Your task to perform on an android device: open app "WhatsApp Messenger" Image 0: 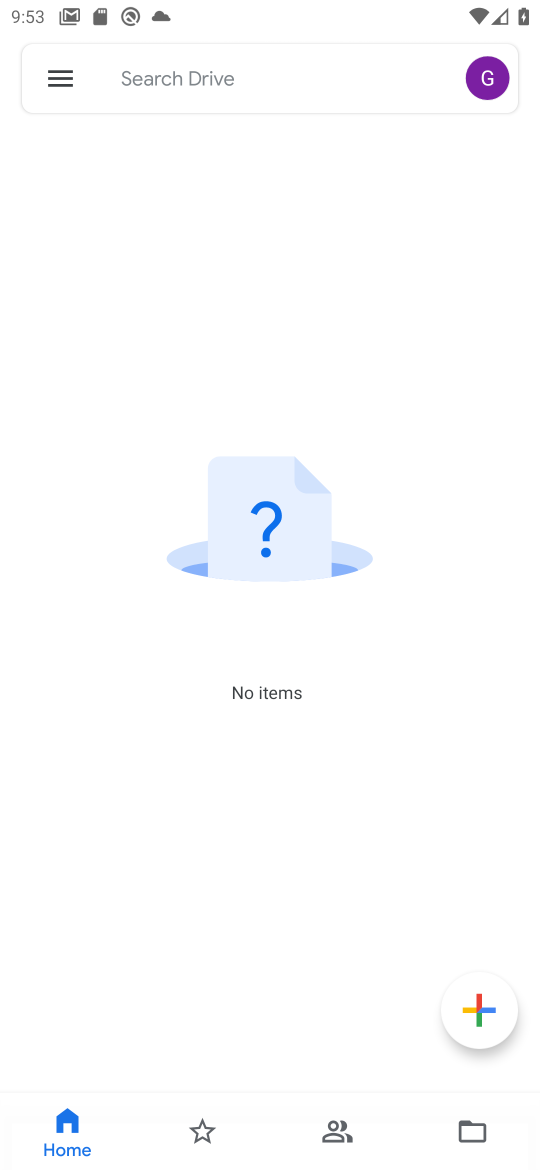
Step 0: press home button
Your task to perform on an android device: open app "WhatsApp Messenger" Image 1: 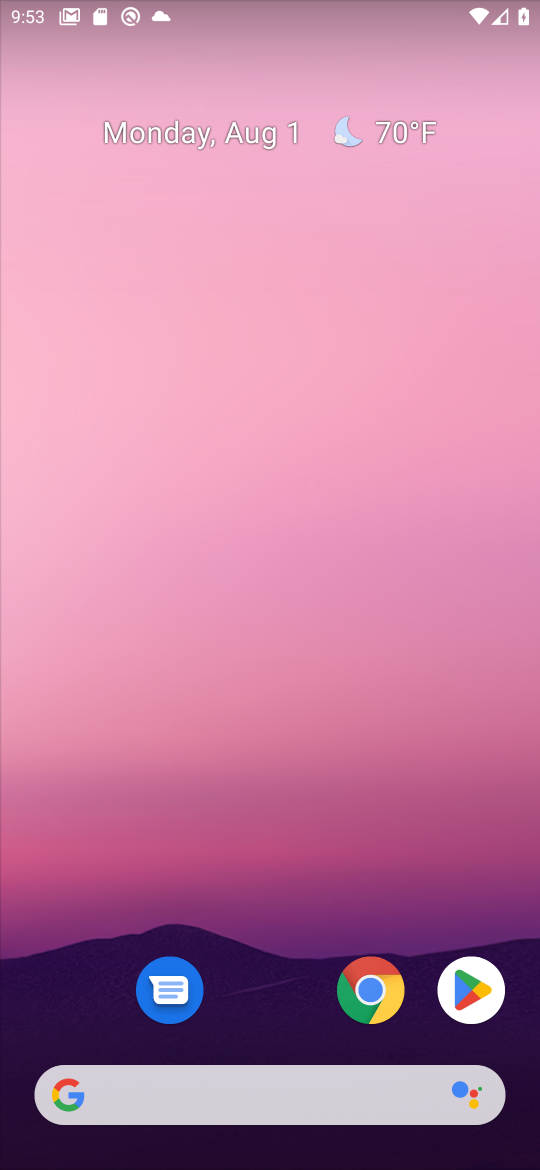
Step 1: drag from (381, 1121) to (427, 419)
Your task to perform on an android device: open app "WhatsApp Messenger" Image 2: 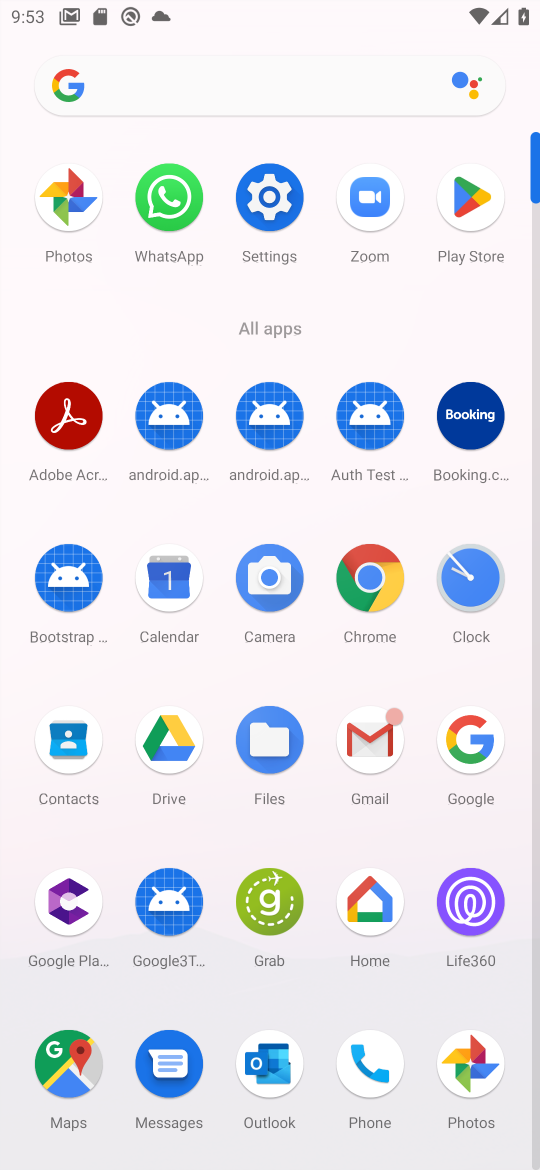
Step 2: click (443, 201)
Your task to perform on an android device: open app "WhatsApp Messenger" Image 3: 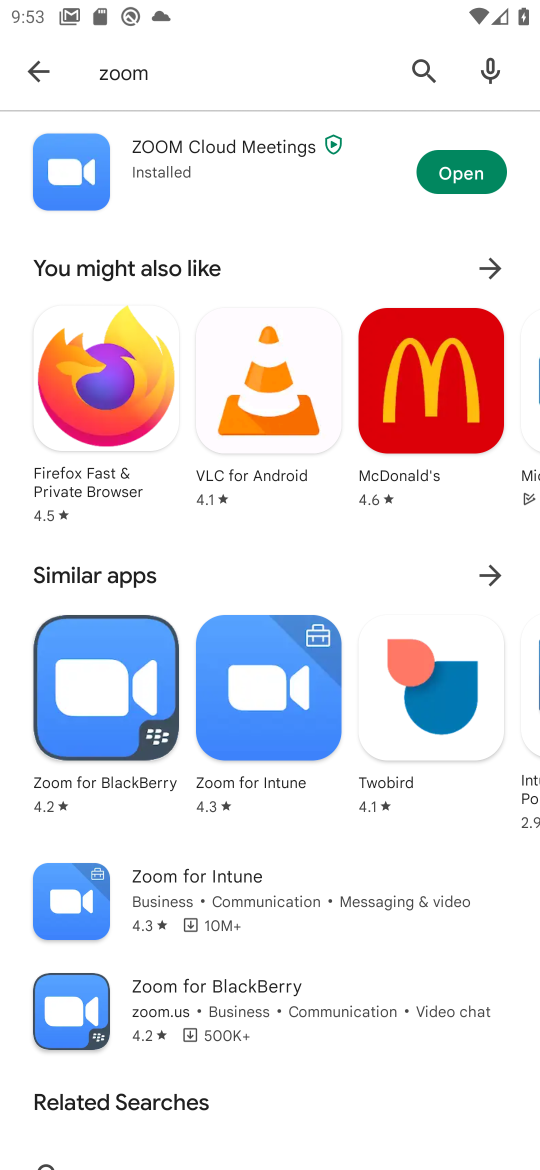
Step 3: click (416, 56)
Your task to perform on an android device: open app "WhatsApp Messenger" Image 4: 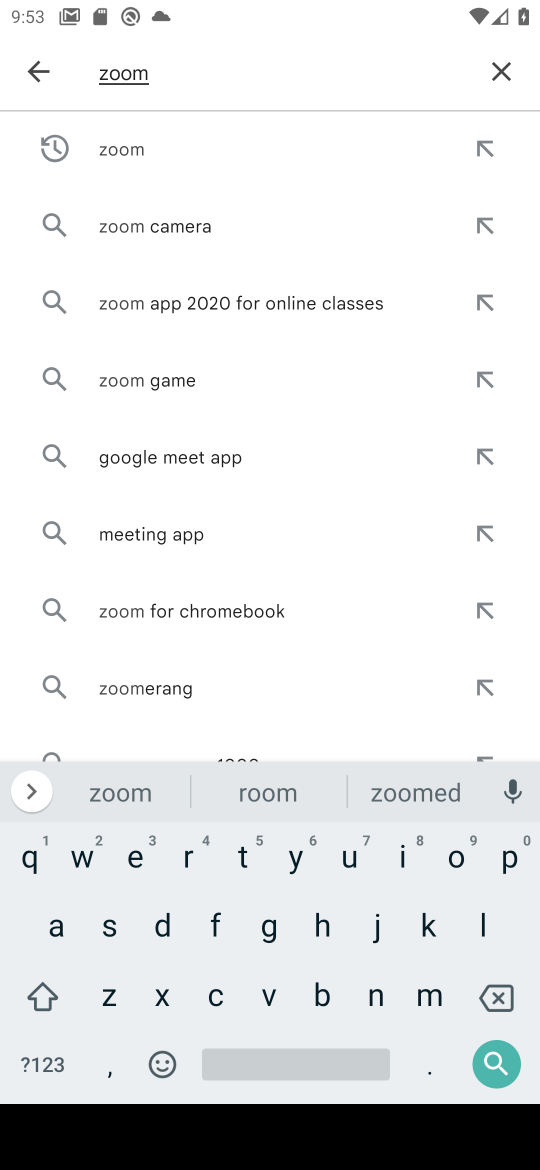
Step 4: click (497, 71)
Your task to perform on an android device: open app "WhatsApp Messenger" Image 5: 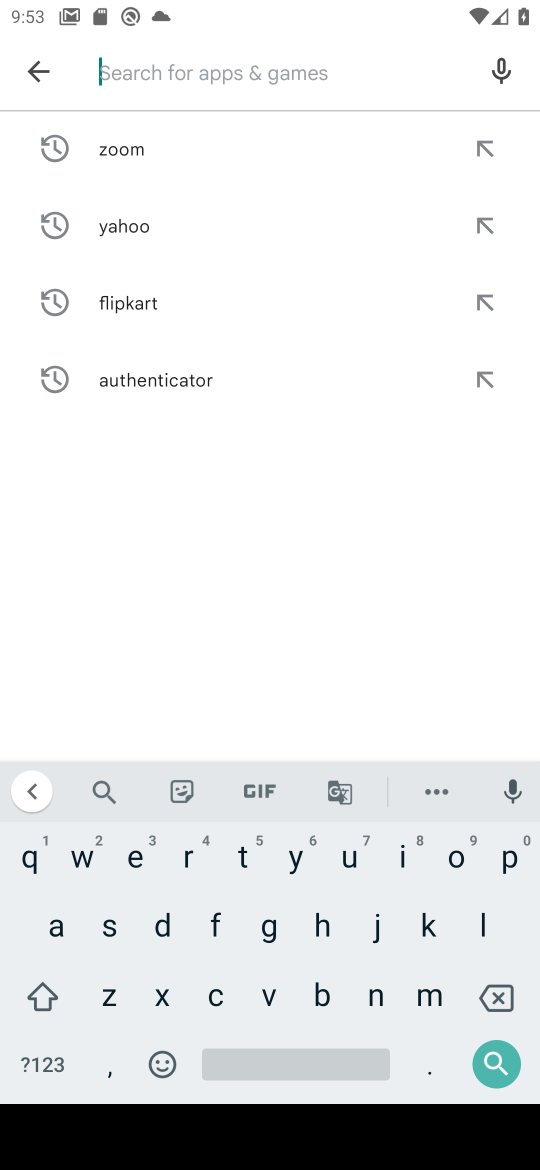
Step 5: click (67, 866)
Your task to perform on an android device: open app "WhatsApp Messenger" Image 6: 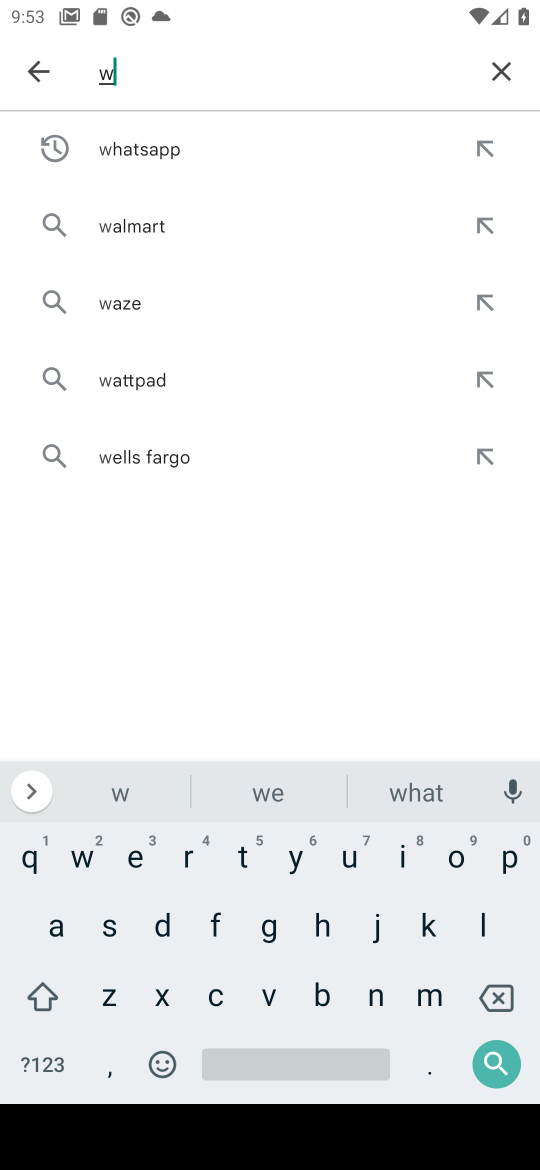
Step 6: click (201, 166)
Your task to perform on an android device: open app "WhatsApp Messenger" Image 7: 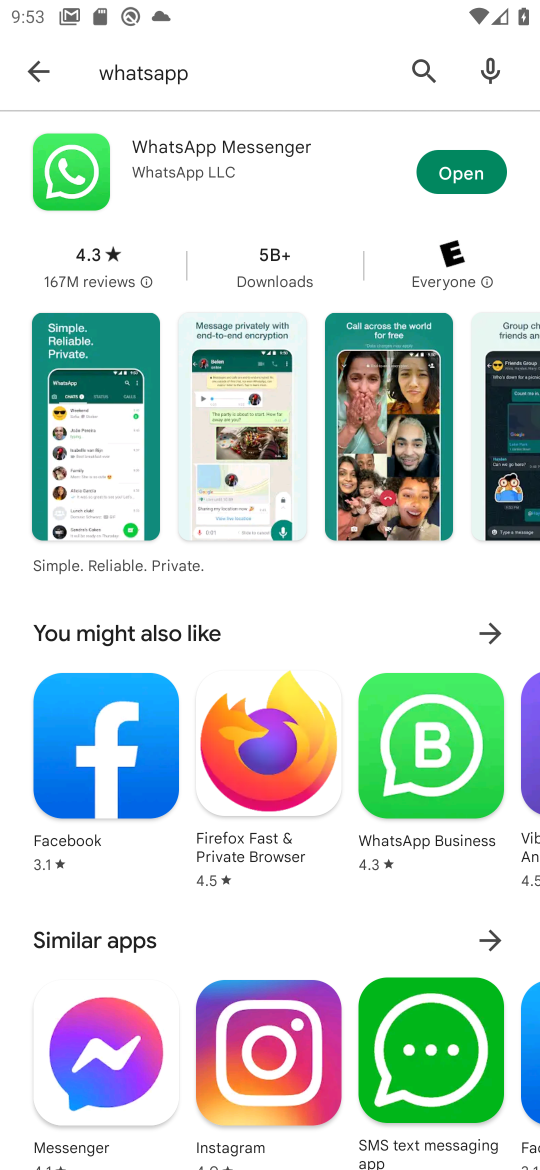
Step 7: click (443, 166)
Your task to perform on an android device: open app "WhatsApp Messenger" Image 8: 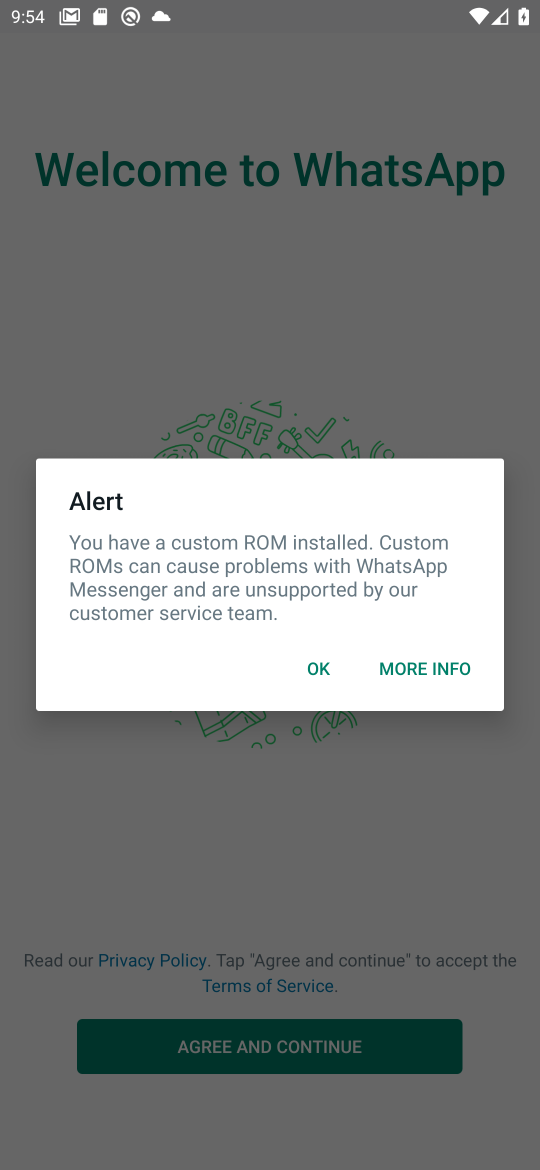
Step 8: click (312, 678)
Your task to perform on an android device: open app "WhatsApp Messenger" Image 9: 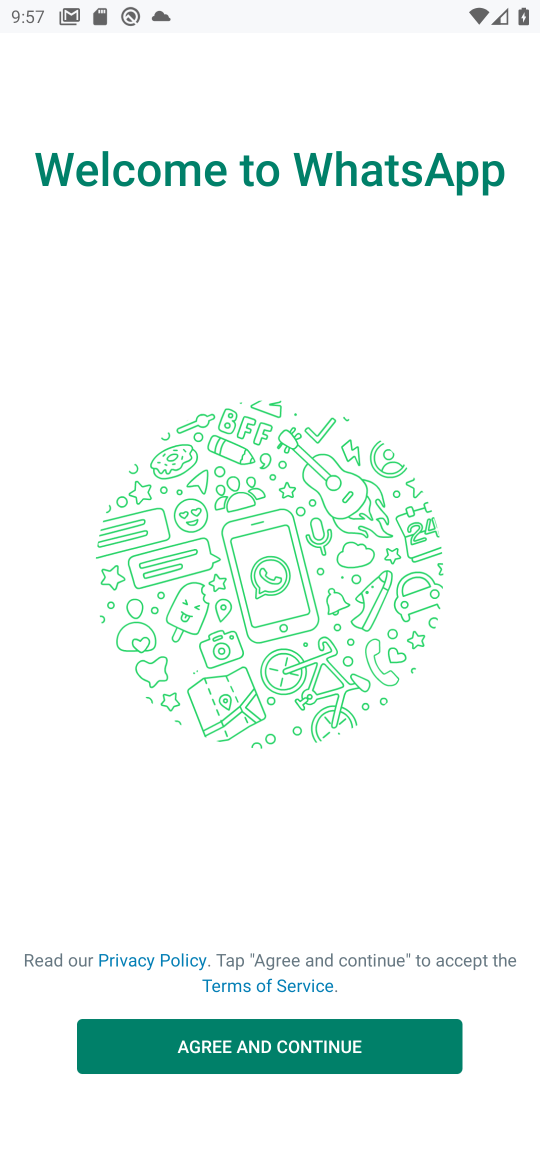
Step 9: task complete